Your task to perform on an android device: change the clock display to digital Image 0: 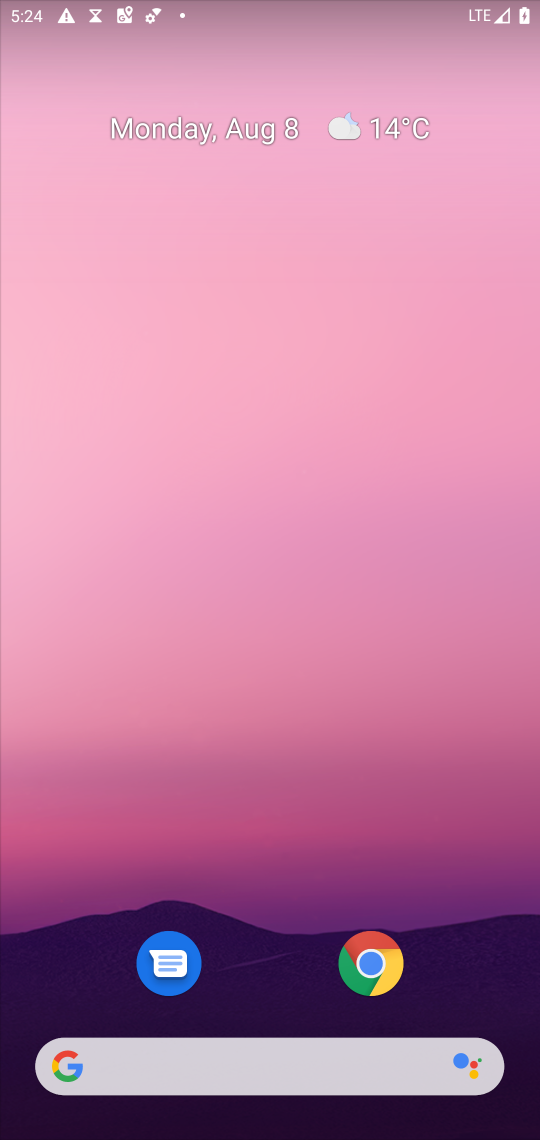
Step 0: drag from (262, 897) to (123, 68)
Your task to perform on an android device: change the clock display to digital Image 1: 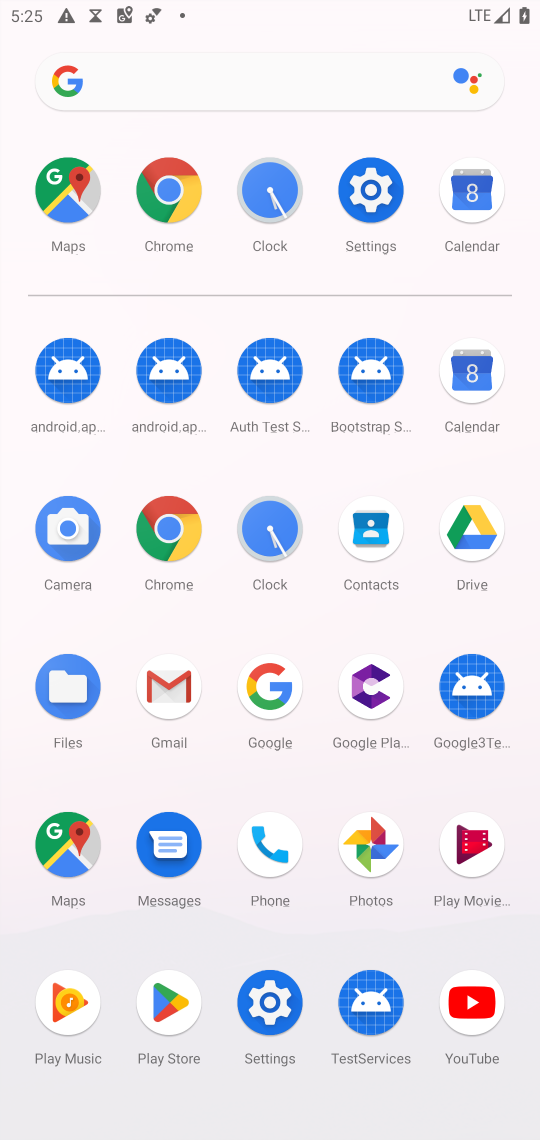
Step 1: click (272, 521)
Your task to perform on an android device: change the clock display to digital Image 2: 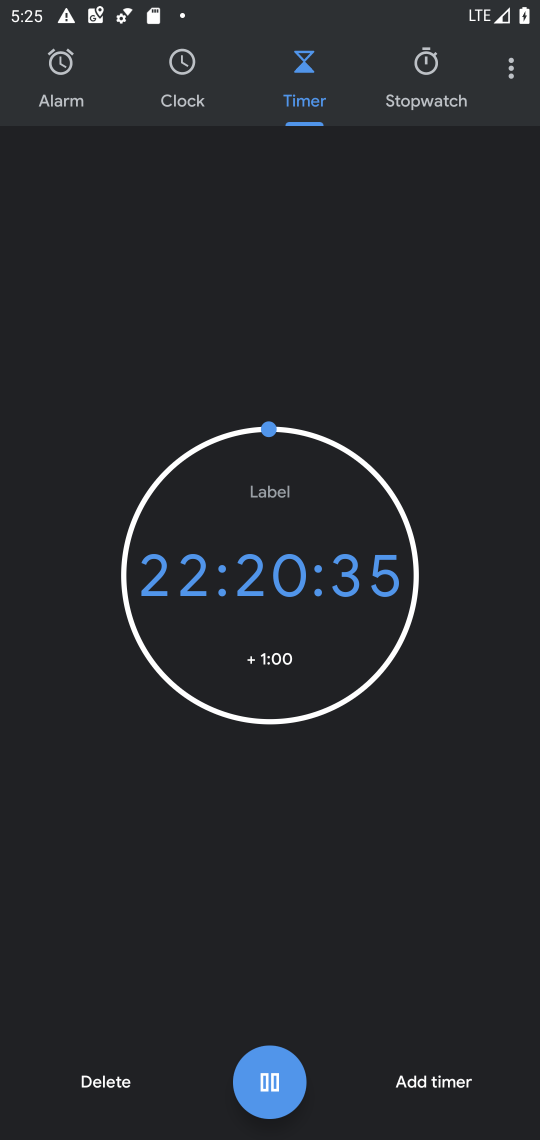
Step 2: click (513, 66)
Your task to perform on an android device: change the clock display to digital Image 3: 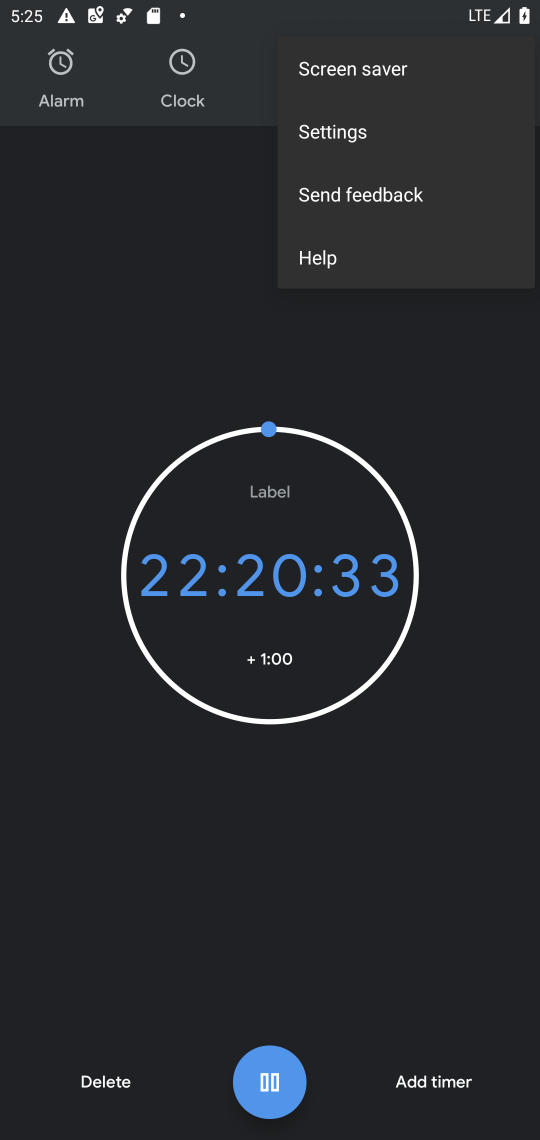
Step 3: click (385, 137)
Your task to perform on an android device: change the clock display to digital Image 4: 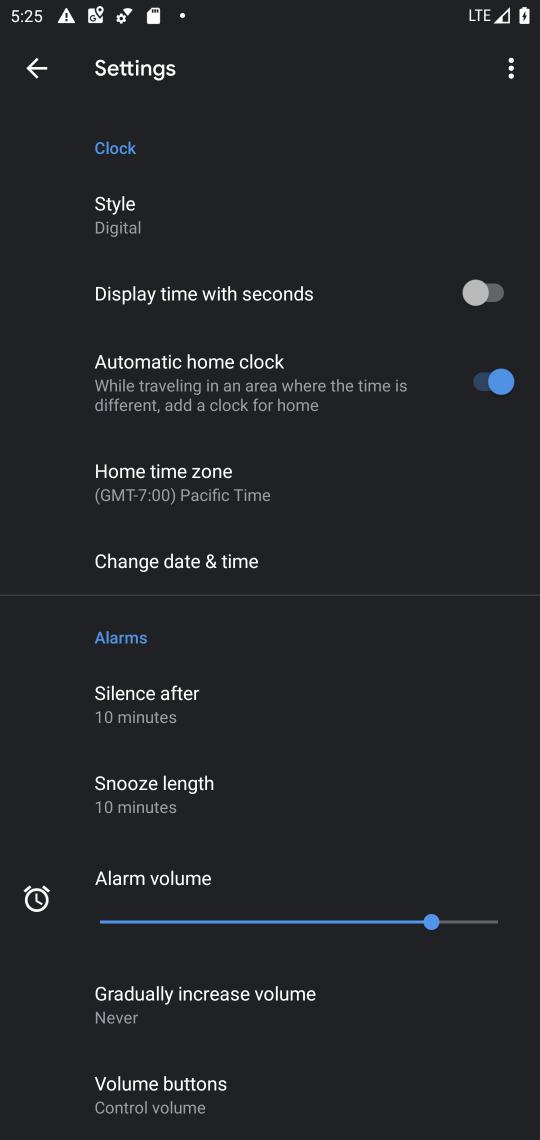
Step 4: click (195, 233)
Your task to perform on an android device: change the clock display to digital Image 5: 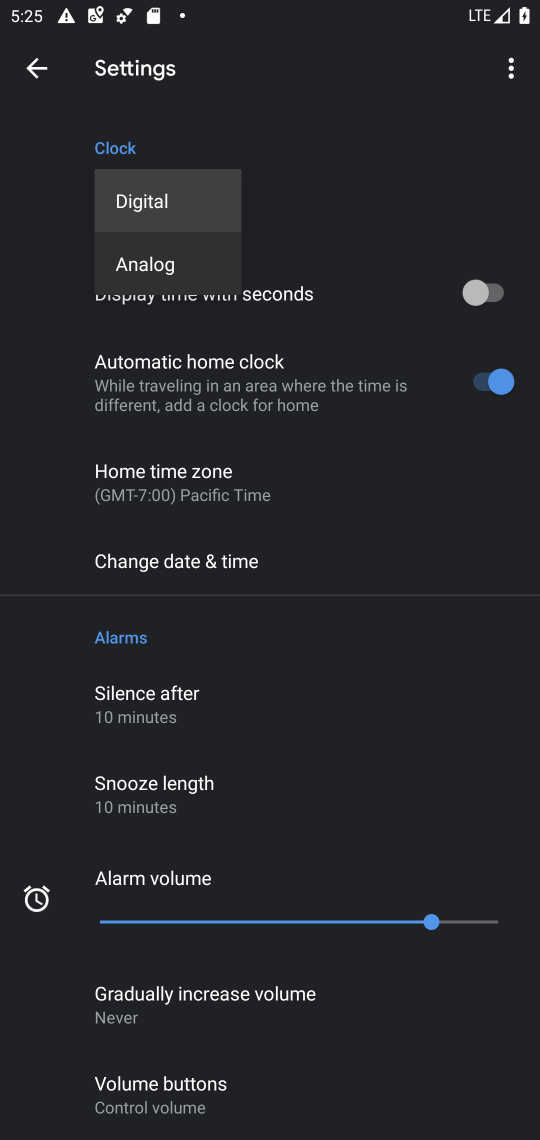
Step 5: click (183, 202)
Your task to perform on an android device: change the clock display to digital Image 6: 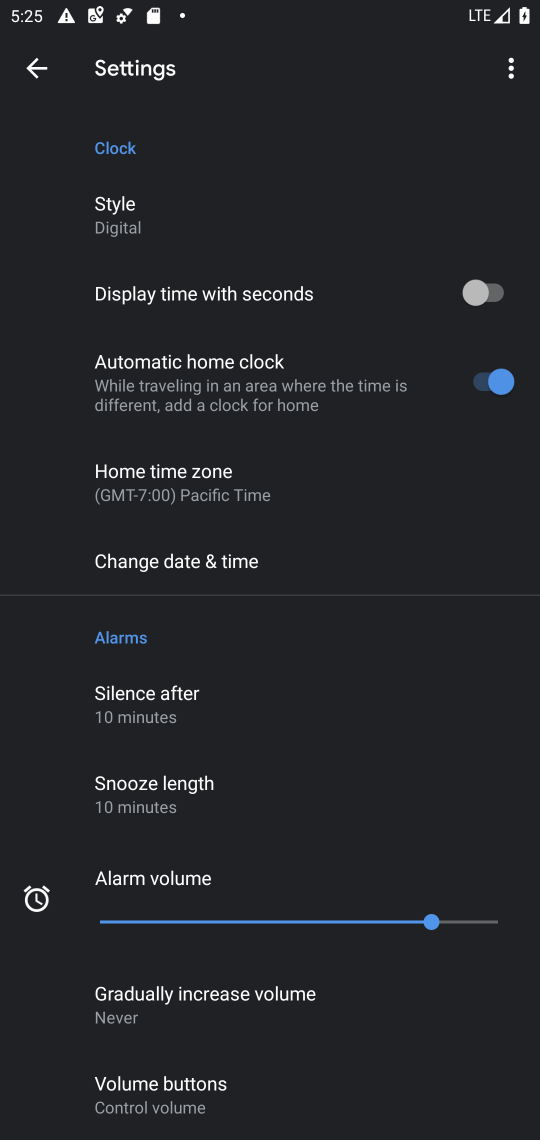
Step 6: task complete